Your task to perform on an android device: see tabs open on other devices in the chrome app Image 0: 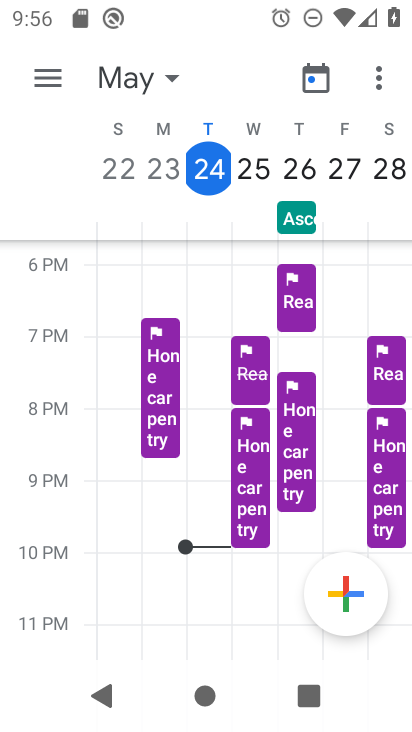
Step 0: press home button
Your task to perform on an android device: see tabs open on other devices in the chrome app Image 1: 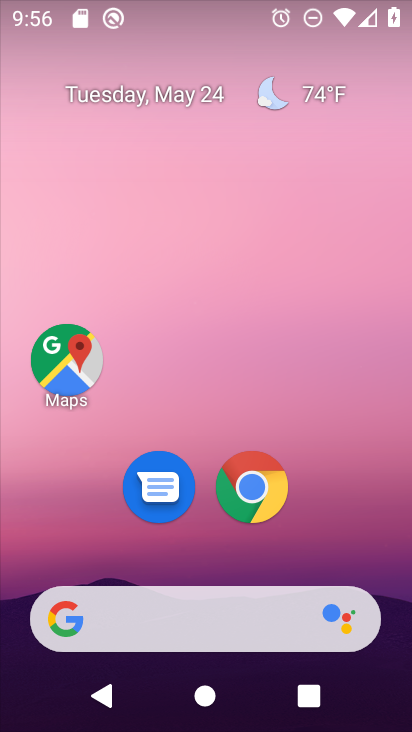
Step 1: click (255, 495)
Your task to perform on an android device: see tabs open on other devices in the chrome app Image 2: 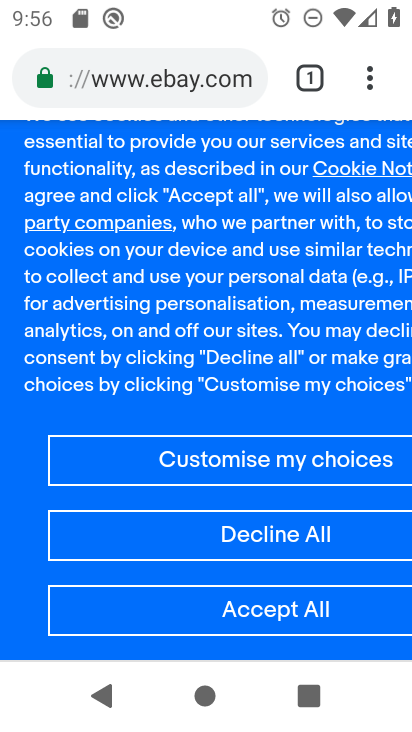
Step 2: click (372, 80)
Your task to perform on an android device: see tabs open on other devices in the chrome app Image 3: 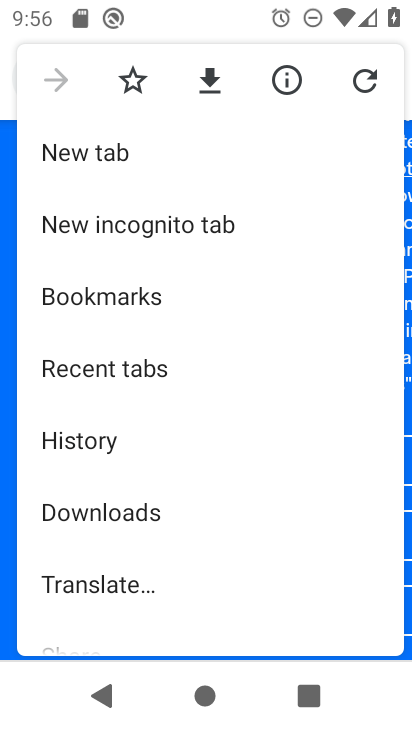
Step 3: click (103, 371)
Your task to perform on an android device: see tabs open on other devices in the chrome app Image 4: 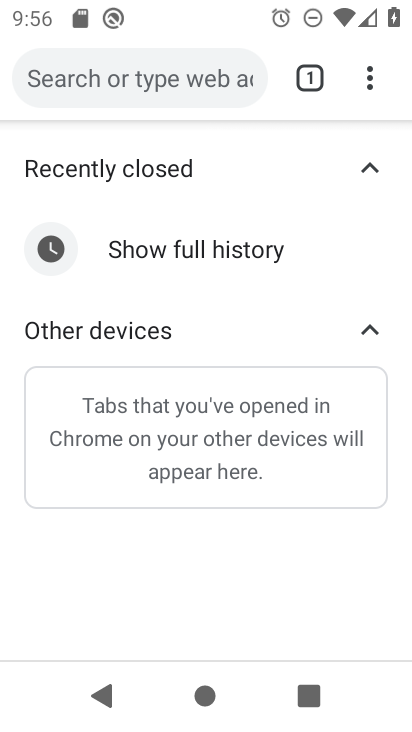
Step 4: task complete